Your task to perform on an android device: turn smart compose on in the gmail app Image 0: 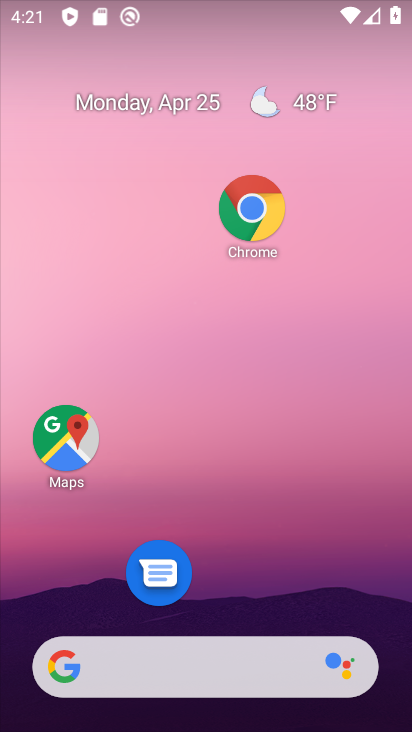
Step 0: drag from (221, 424) to (254, 185)
Your task to perform on an android device: turn smart compose on in the gmail app Image 1: 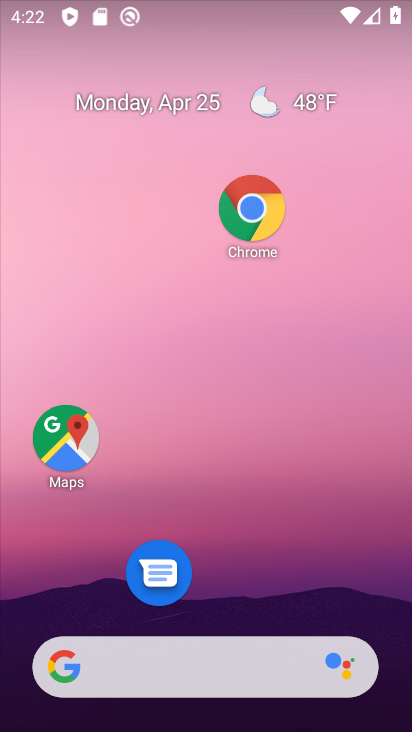
Step 1: drag from (220, 582) to (180, 183)
Your task to perform on an android device: turn smart compose on in the gmail app Image 2: 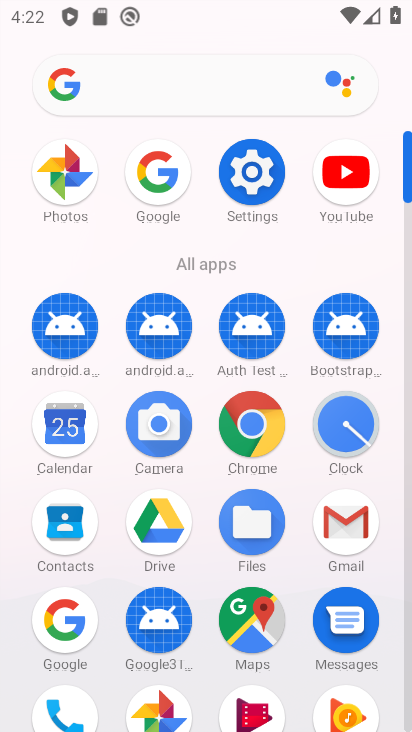
Step 2: click (340, 521)
Your task to perform on an android device: turn smart compose on in the gmail app Image 3: 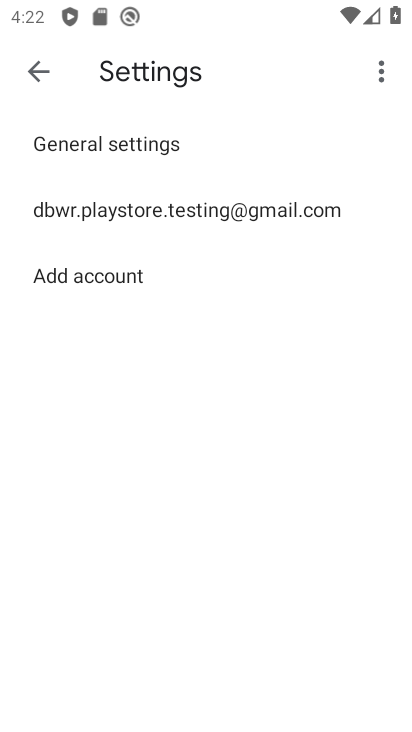
Step 3: click (83, 205)
Your task to perform on an android device: turn smart compose on in the gmail app Image 4: 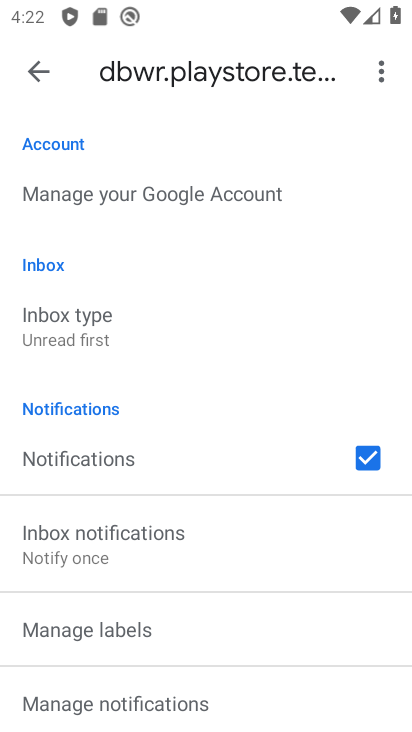
Step 4: task complete